Your task to perform on an android device: Open privacy settings Image 0: 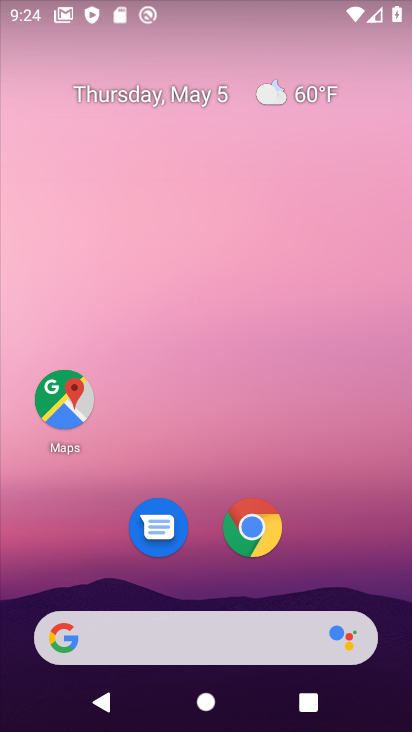
Step 0: drag from (348, 505) to (332, 103)
Your task to perform on an android device: Open privacy settings Image 1: 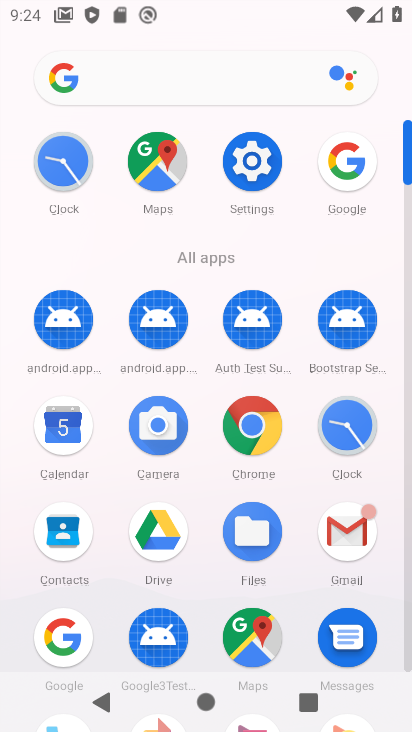
Step 1: click (267, 179)
Your task to perform on an android device: Open privacy settings Image 2: 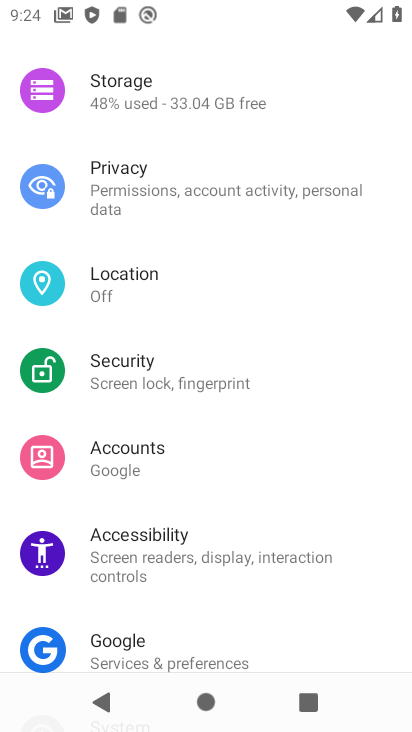
Step 2: click (228, 182)
Your task to perform on an android device: Open privacy settings Image 3: 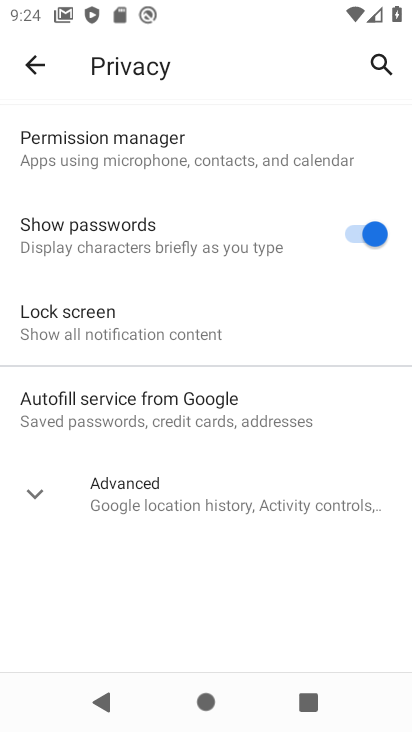
Step 3: task complete